Your task to perform on an android device: Go to location settings Image 0: 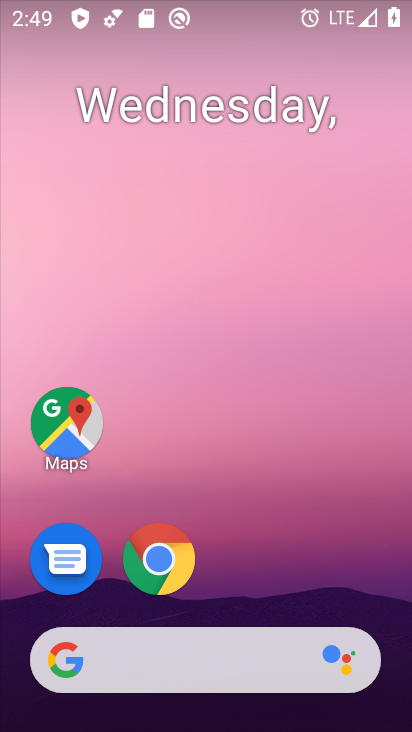
Step 0: drag from (277, 547) to (291, 23)
Your task to perform on an android device: Go to location settings Image 1: 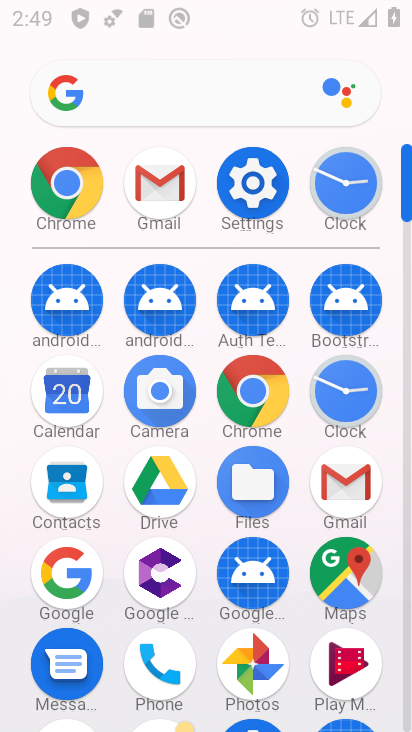
Step 1: click (265, 215)
Your task to perform on an android device: Go to location settings Image 2: 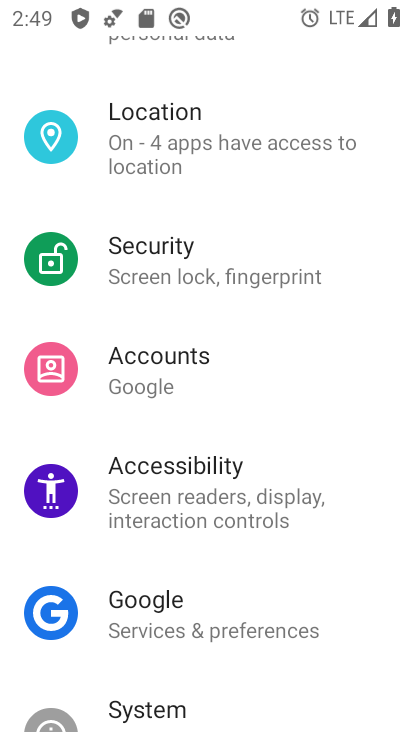
Step 2: click (160, 140)
Your task to perform on an android device: Go to location settings Image 3: 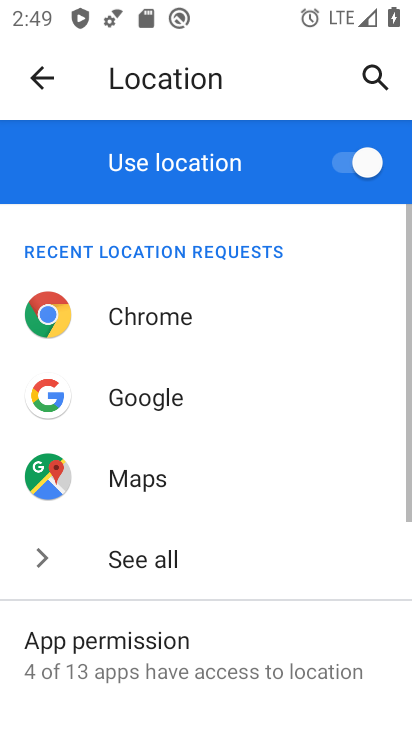
Step 3: task complete